Your task to perform on an android device: open a bookmark in the chrome app Image 0: 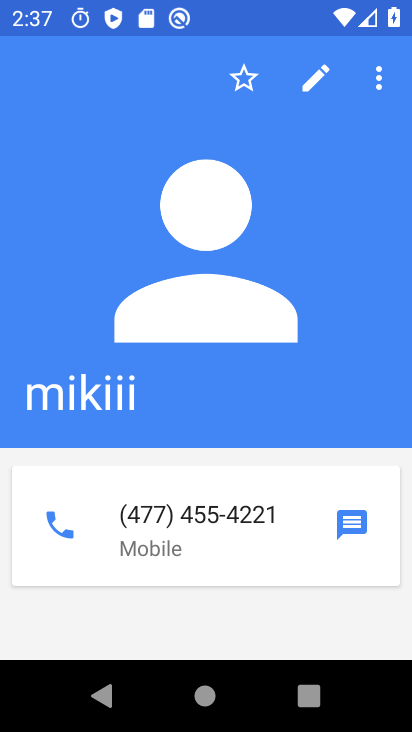
Step 0: press home button
Your task to perform on an android device: open a bookmark in the chrome app Image 1: 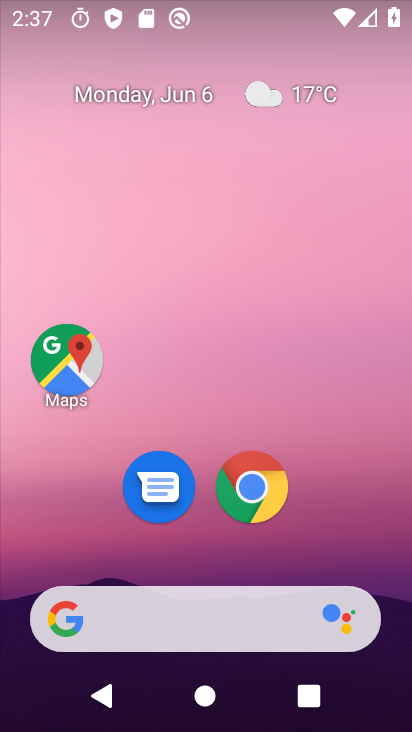
Step 1: click (271, 502)
Your task to perform on an android device: open a bookmark in the chrome app Image 2: 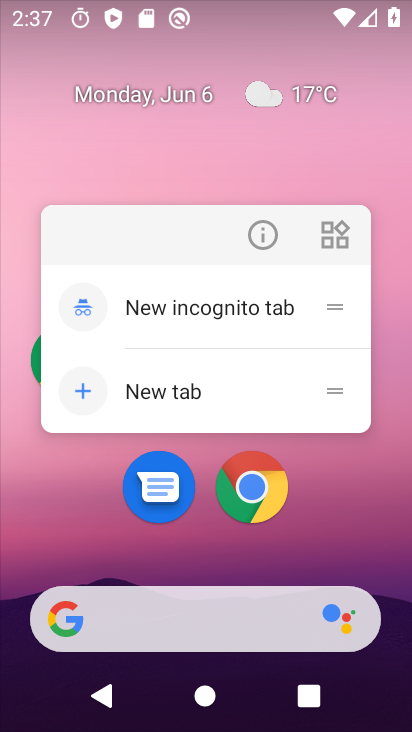
Step 2: click (270, 500)
Your task to perform on an android device: open a bookmark in the chrome app Image 3: 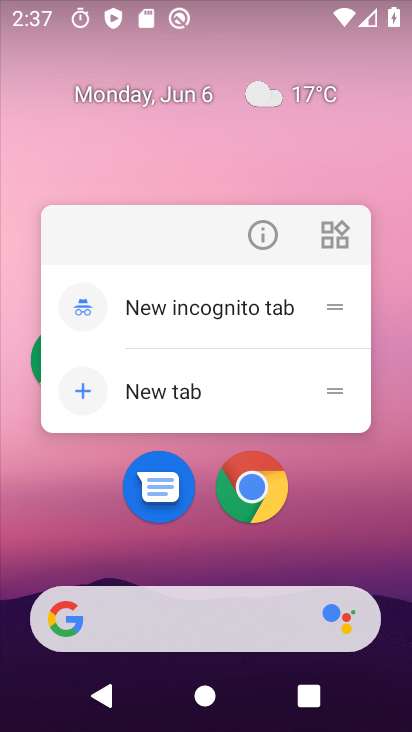
Step 3: click (269, 500)
Your task to perform on an android device: open a bookmark in the chrome app Image 4: 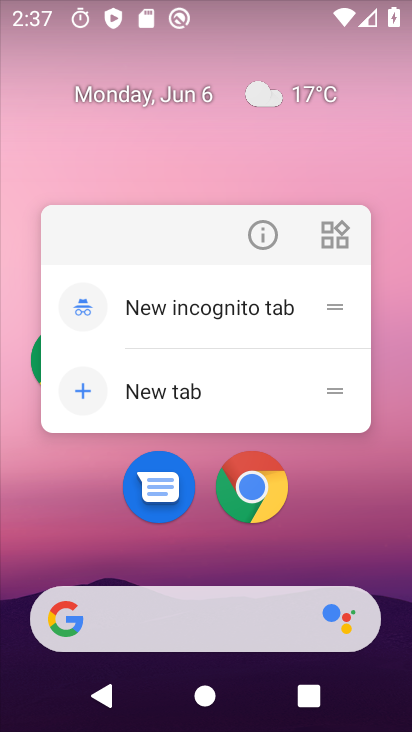
Step 4: click (259, 501)
Your task to perform on an android device: open a bookmark in the chrome app Image 5: 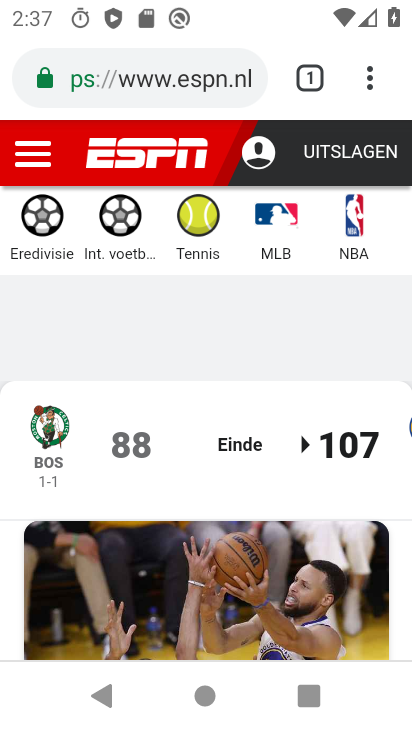
Step 5: drag from (382, 73) to (288, 294)
Your task to perform on an android device: open a bookmark in the chrome app Image 6: 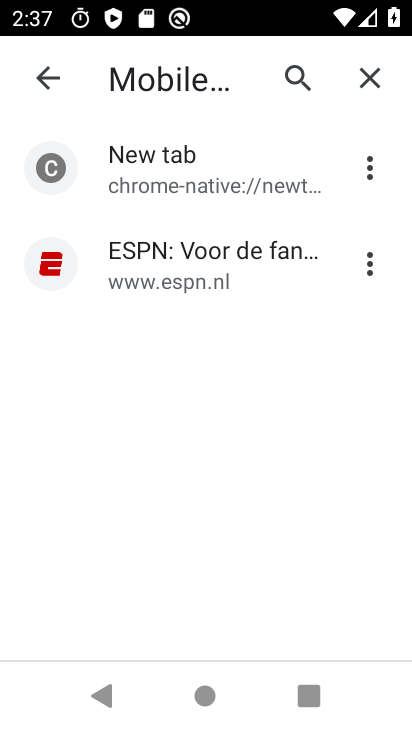
Step 6: click (190, 257)
Your task to perform on an android device: open a bookmark in the chrome app Image 7: 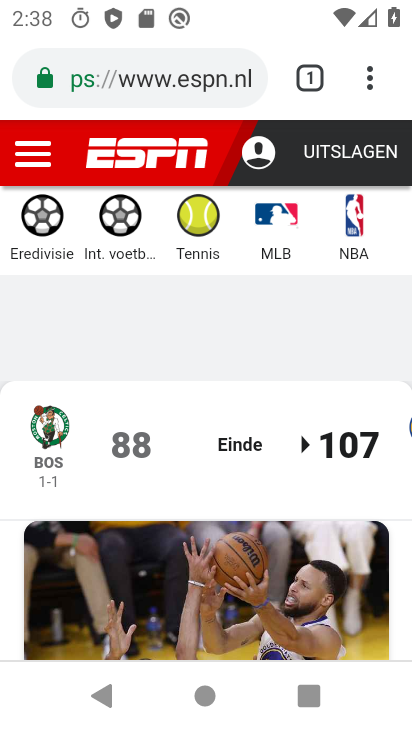
Step 7: task complete